Your task to perform on an android device: Go to settings Image 0: 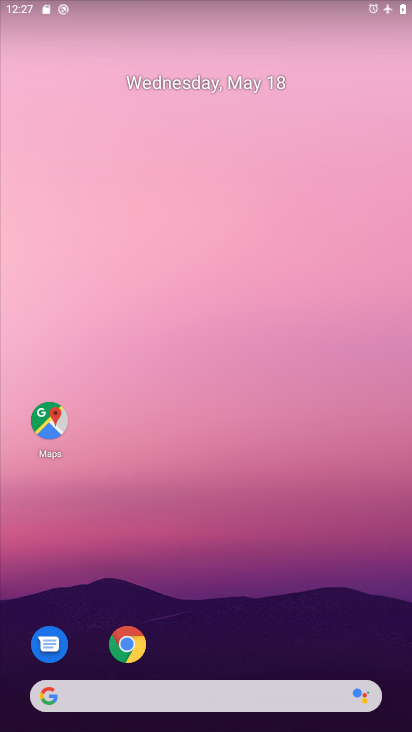
Step 0: drag from (215, 654) to (240, 71)
Your task to perform on an android device: Go to settings Image 1: 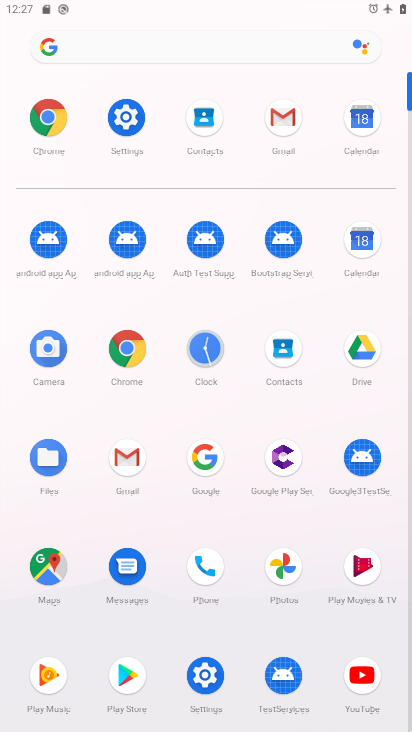
Step 1: click (120, 108)
Your task to perform on an android device: Go to settings Image 2: 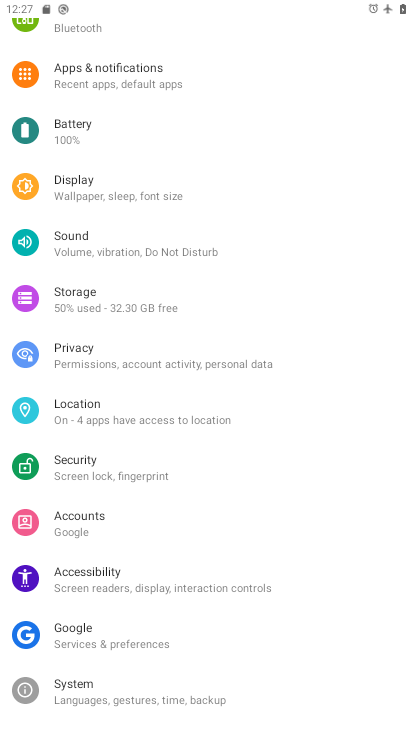
Step 2: task complete